Your task to perform on an android device: open the mobile data screen to see how much data has been used Image 0: 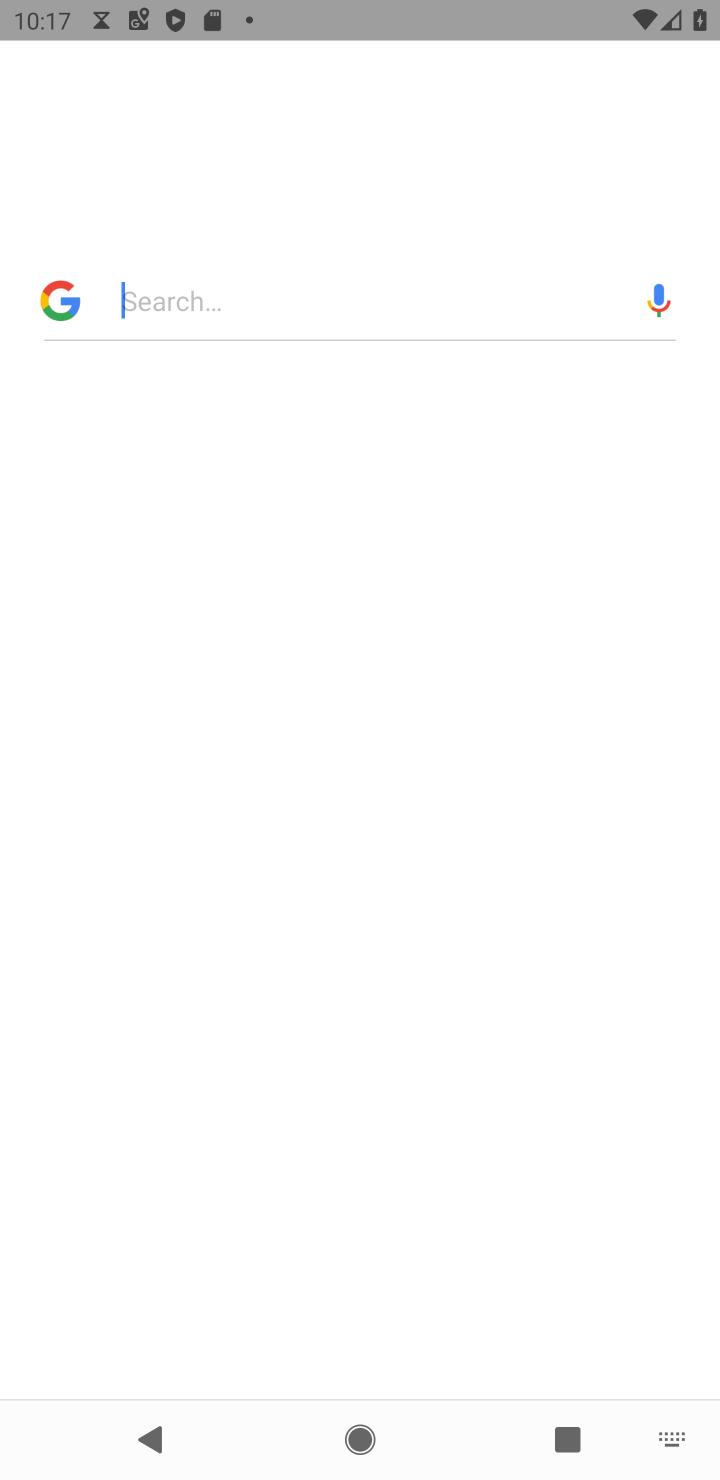
Step 0: press home button
Your task to perform on an android device: open the mobile data screen to see how much data has been used Image 1: 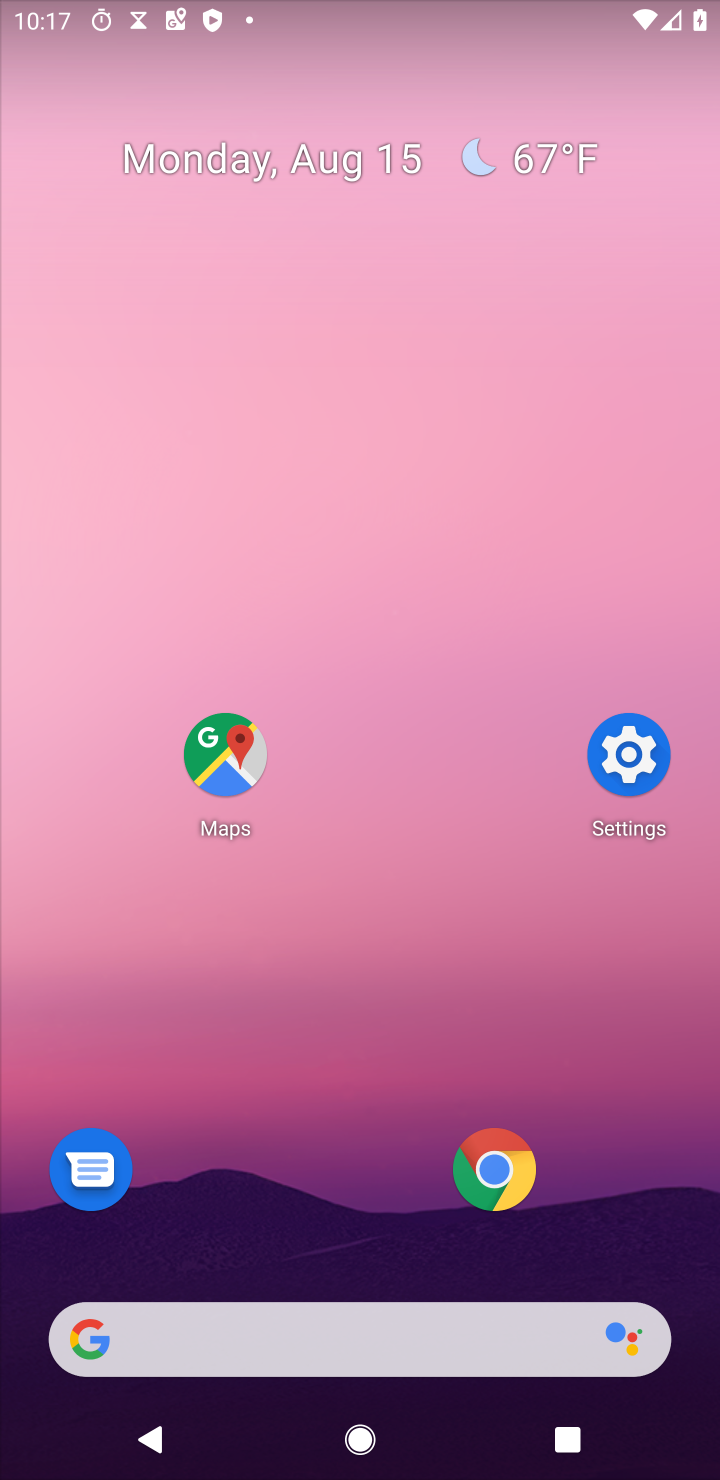
Step 1: click (635, 759)
Your task to perform on an android device: open the mobile data screen to see how much data has been used Image 2: 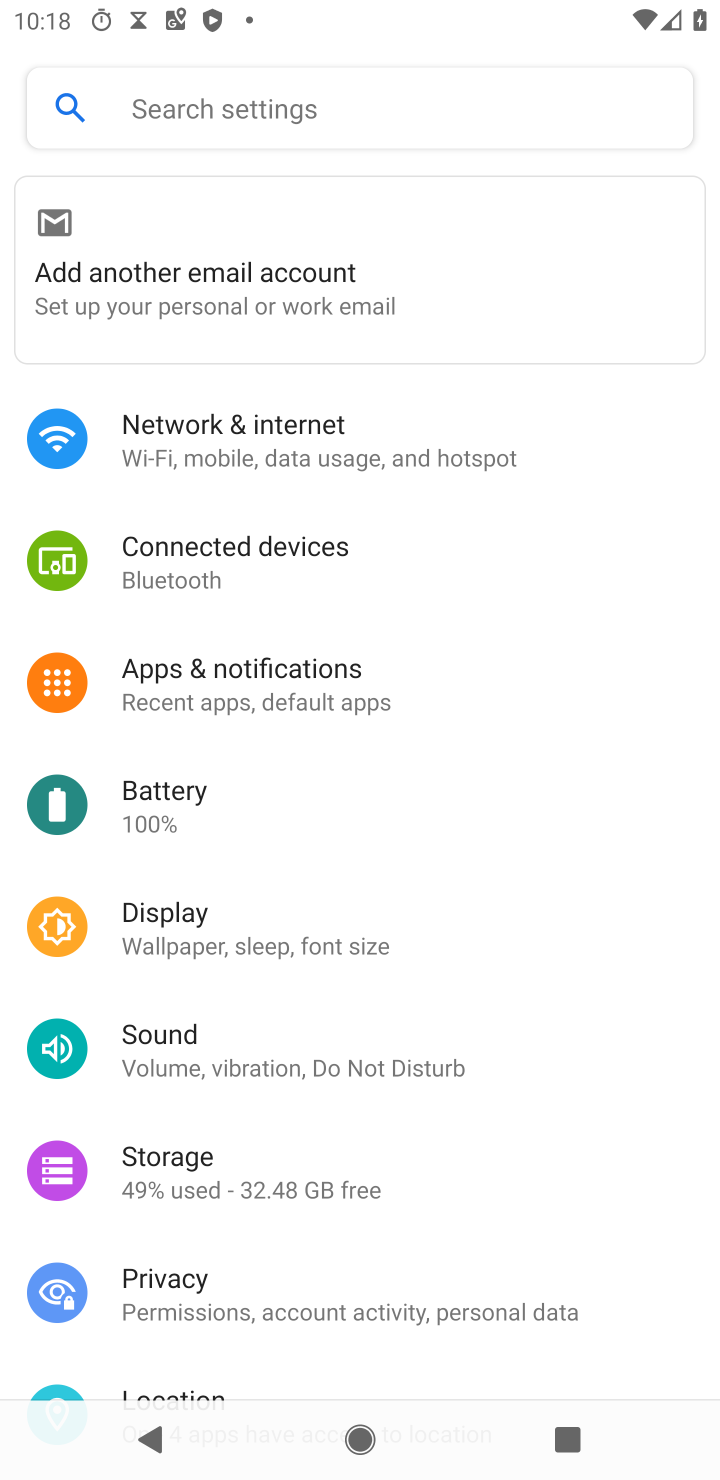
Step 2: click (272, 439)
Your task to perform on an android device: open the mobile data screen to see how much data has been used Image 3: 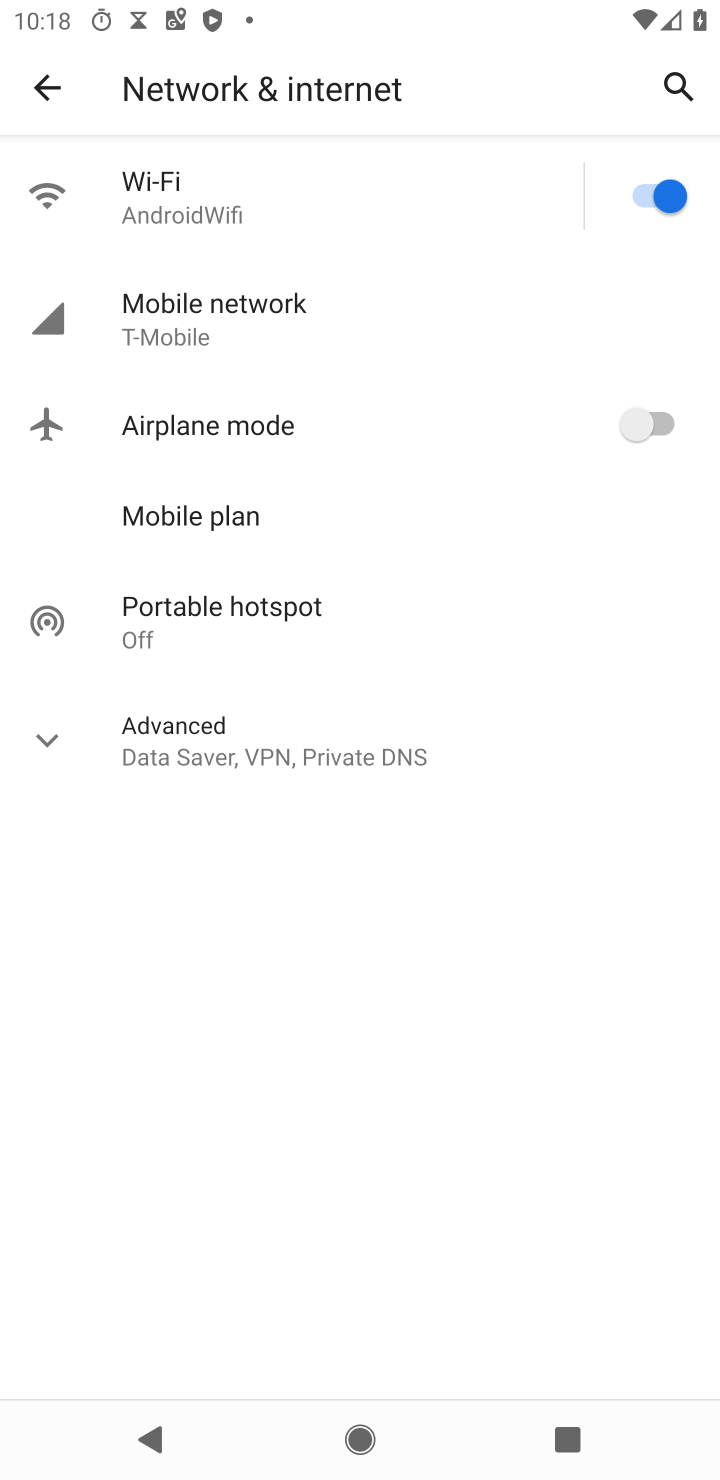
Step 3: click (242, 318)
Your task to perform on an android device: open the mobile data screen to see how much data has been used Image 4: 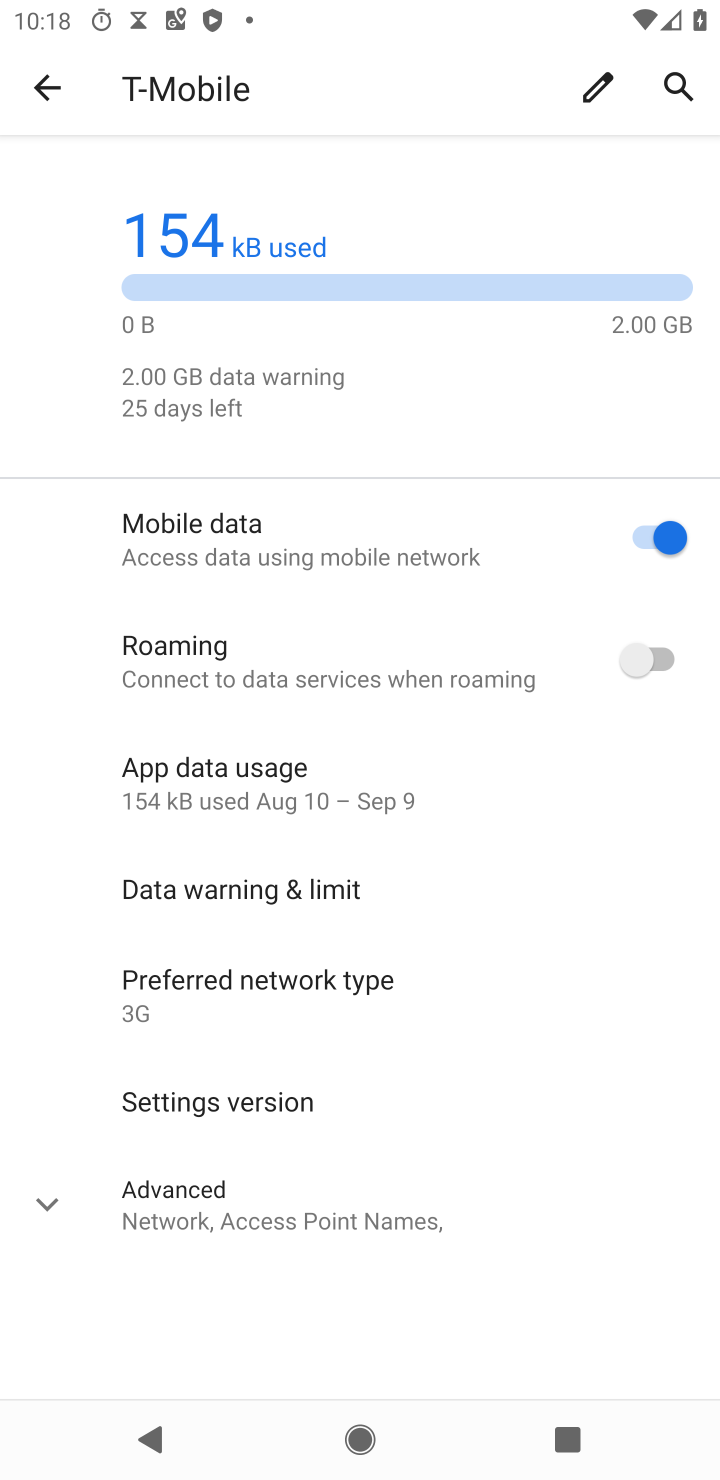
Step 4: task complete